Your task to perform on an android device: Go to Reddit.com Image 0: 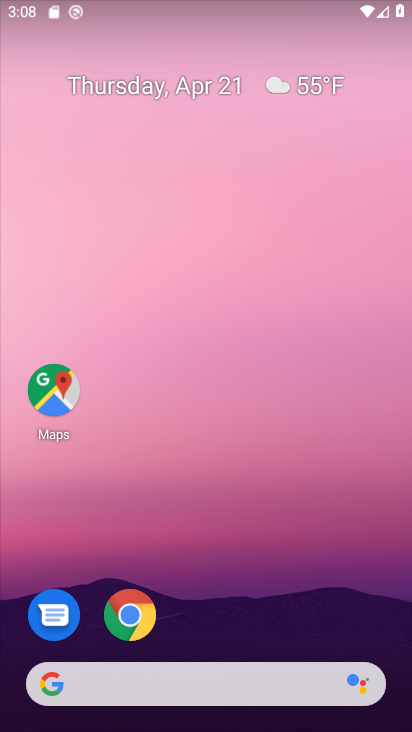
Step 0: click (257, 27)
Your task to perform on an android device: Go to Reddit.com Image 1: 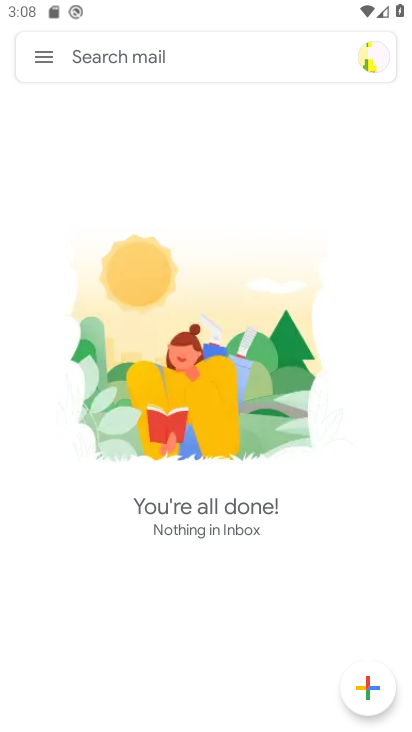
Step 1: press home button
Your task to perform on an android device: Go to Reddit.com Image 2: 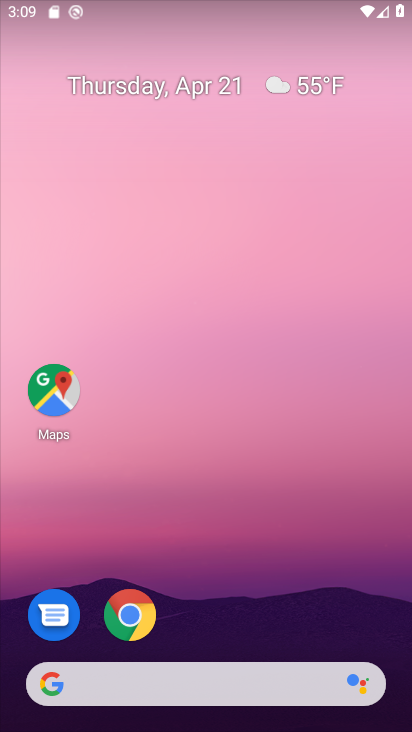
Step 2: click (124, 606)
Your task to perform on an android device: Go to Reddit.com Image 3: 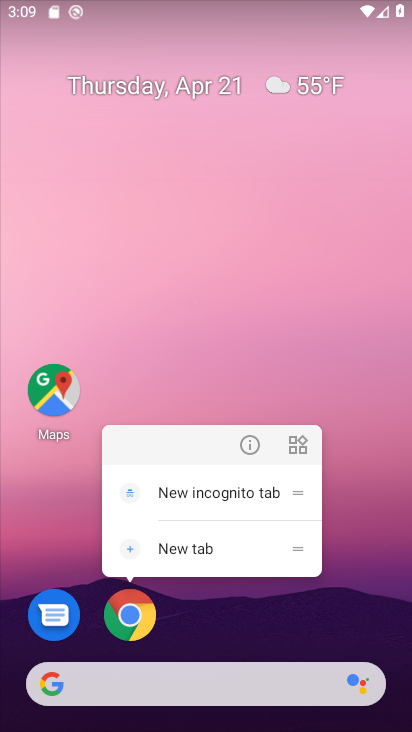
Step 3: click (128, 610)
Your task to perform on an android device: Go to Reddit.com Image 4: 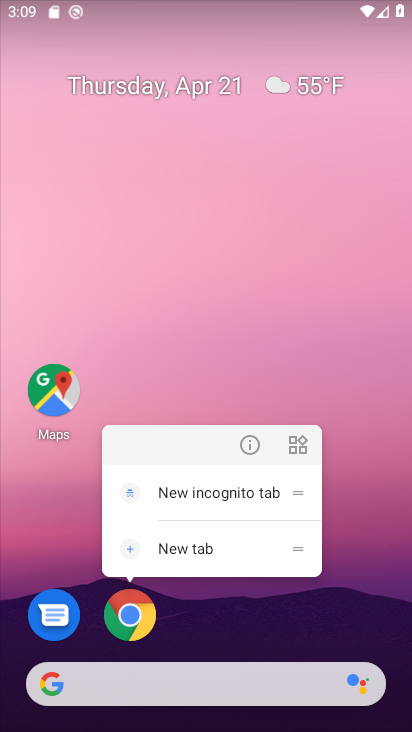
Step 4: click (128, 610)
Your task to perform on an android device: Go to Reddit.com Image 5: 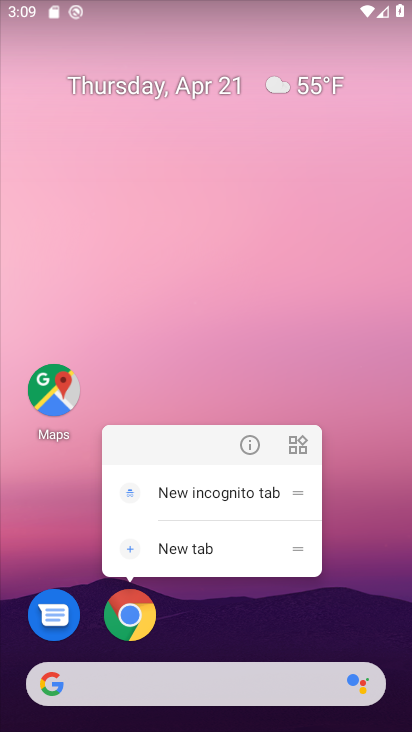
Step 5: drag from (236, 629) to (239, 61)
Your task to perform on an android device: Go to Reddit.com Image 6: 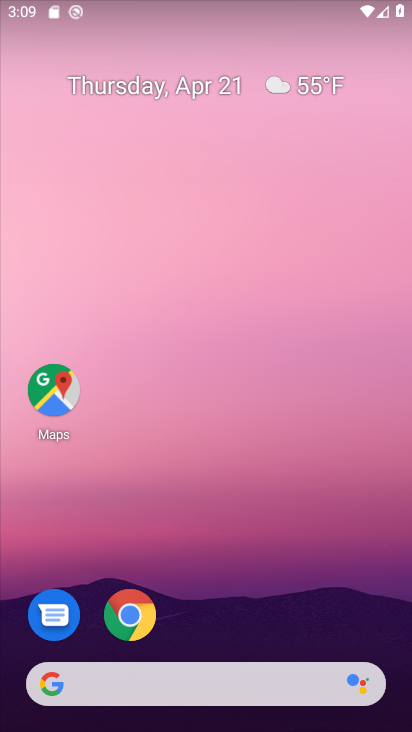
Step 6: drag from (279, 549) to (248, 83)
Your task to perform on an android device: Go to Reddit.com Image 7: 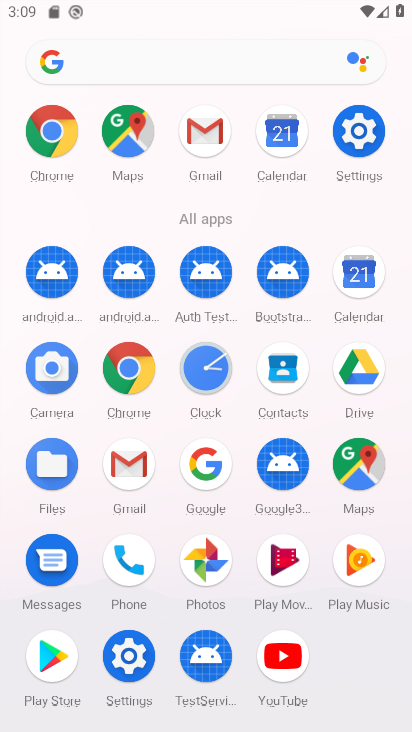
Step 7: click (132, 364)
Your task to perform on an android device: Go to Reddit.com Image 8: 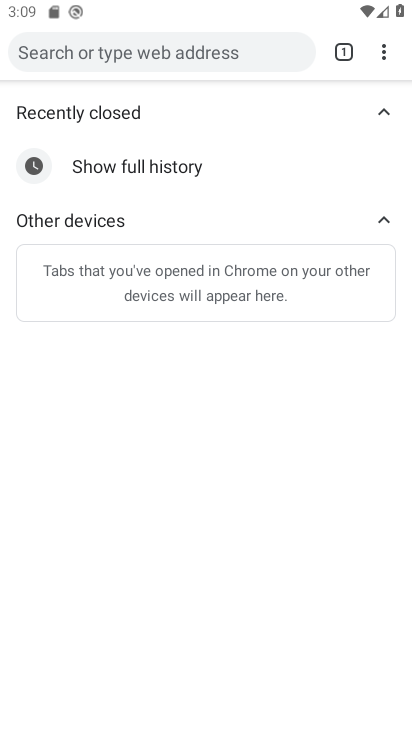
Step 8: click (341, 47)
Your task to perform on an android device: Go to Reddit.com Image 9: 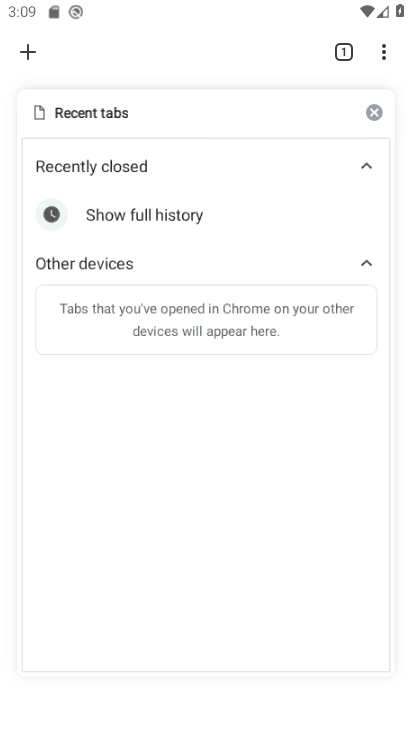
Step 9: click (25, 49)
Your task to perform on an android device: Go to Reddit.com Image 10: 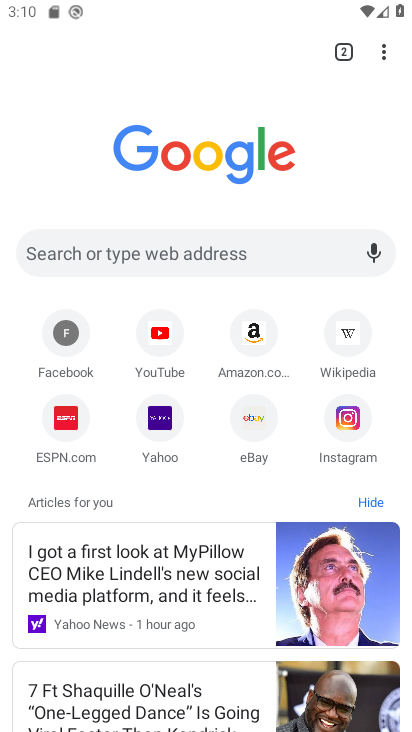
Step 10: click (155, 250)
Your task to perform on an android device: Go to Reddit.com Image 11: 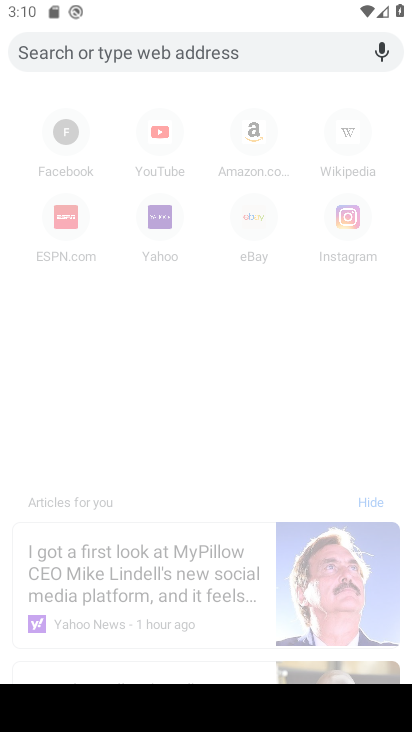
Step 11: type "reddit.com"
Your task to perform on an android device: Go to Reddit.com Image 12: 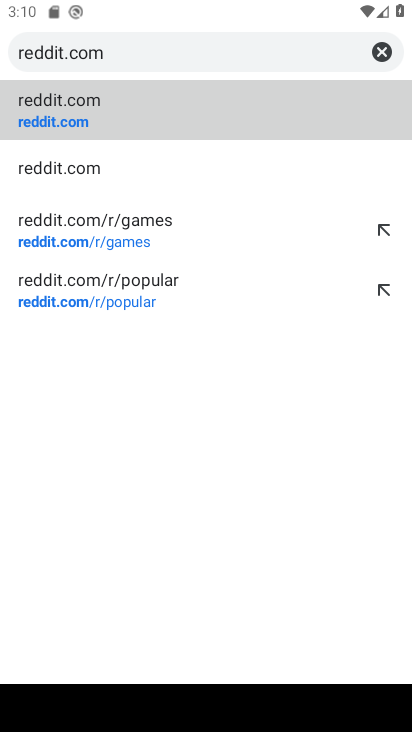
Step 12: click (87, 114)
Your task to perform on an android device: Go to Reddit.com Image 13: 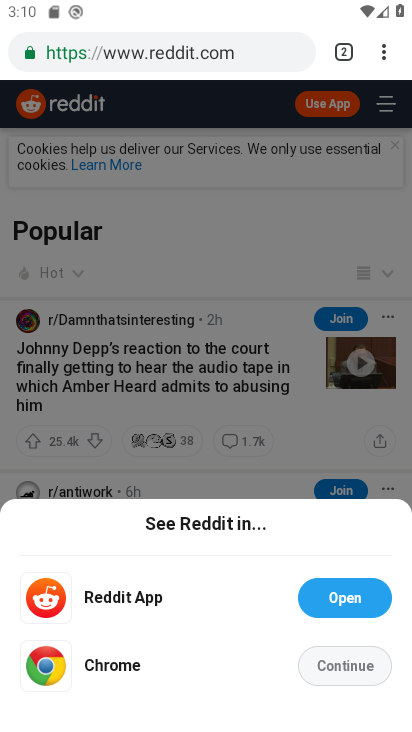
Step 13: click (343, 666)
Your task to perform on an android device: Go to Reddit.com Image 14: 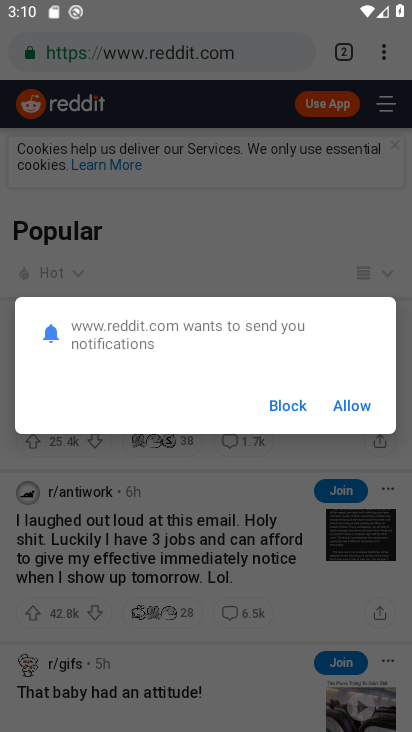
Step 14: click (282, 400)
Your task to perform on an android device: Go to Reddit.com Image 15: 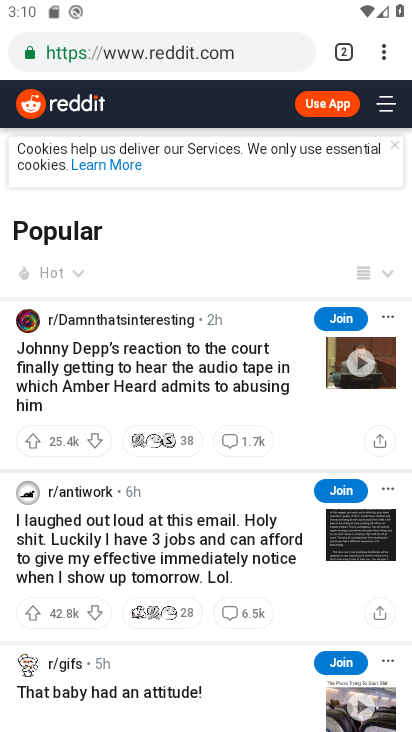
Step 15: task complete